Your task to perform on an android device: empty trash in the gmail app Image 0: 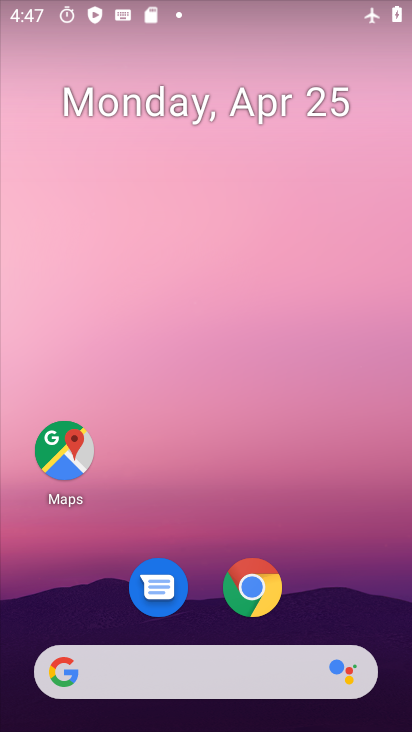
Step 0: drag from (331, 497) to (285, 22)
Your task to perform on an android device: empty trash in the gmail app Image 1: 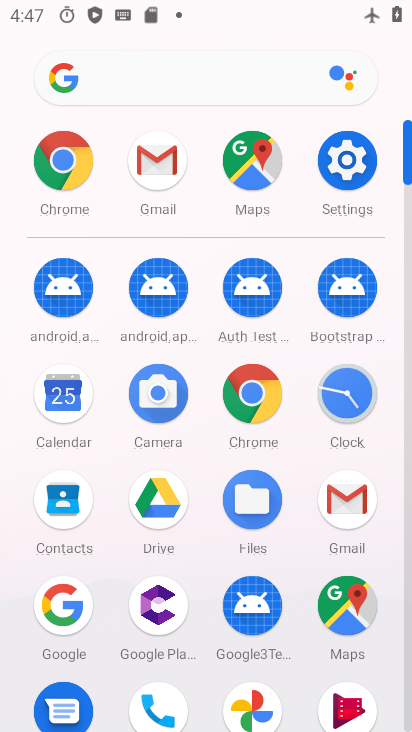
Step 1: click (355, 504)
Your task to perform on an android device: empty trash in the gmail app Image 2: 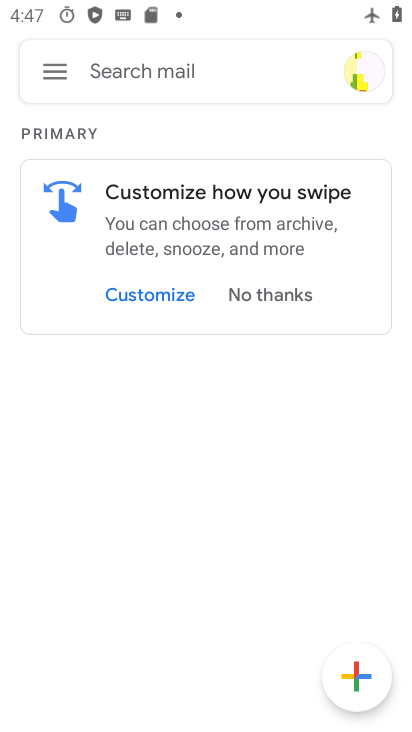
Step 2: click (49, 65)
Your task to perform on an android device: empty trash in the gmail app Image 3: 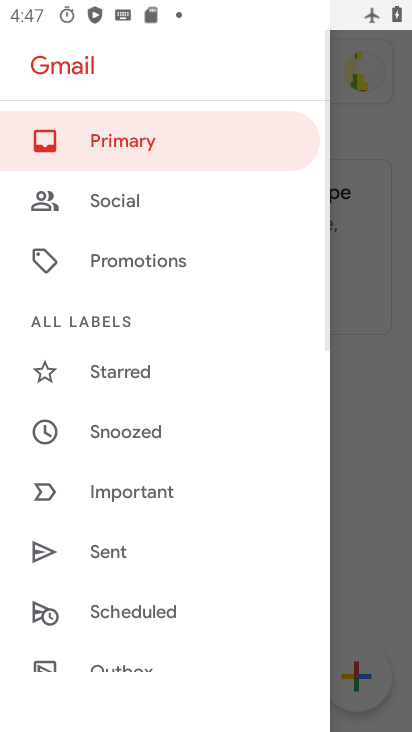
Step 3: drag from (149, 494) to (196, 130)
Your task to perform on an android device: empty trash in the gmail app Image 4: 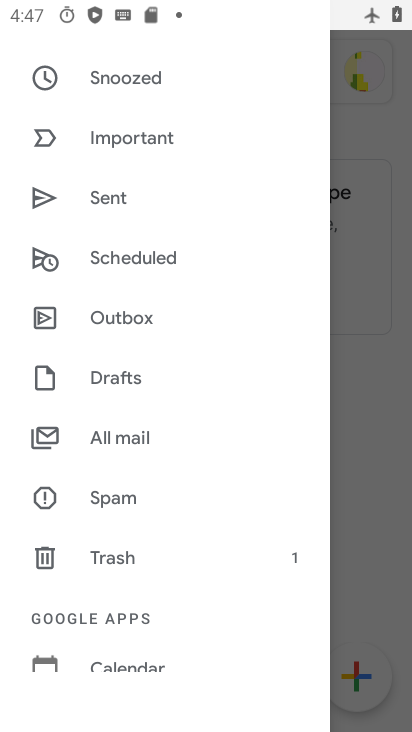
Step 4: click (114, 555)
Your task to perform on an android device: empty trash in the gmail app Image 5: 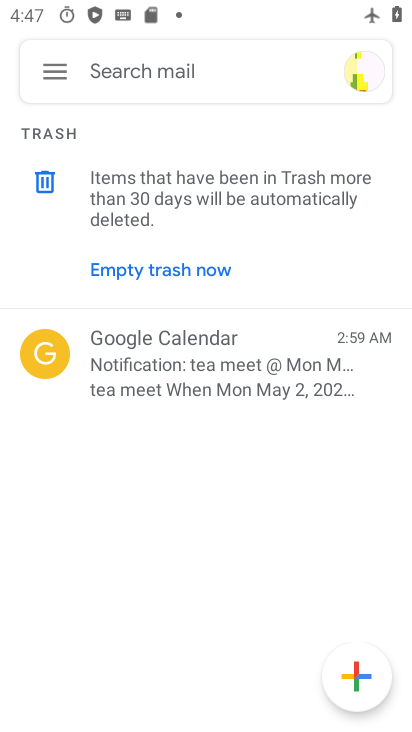
Step 5: click (147, 249)
Your task to perform on an android device: empty trash in the gmail app Image 6: 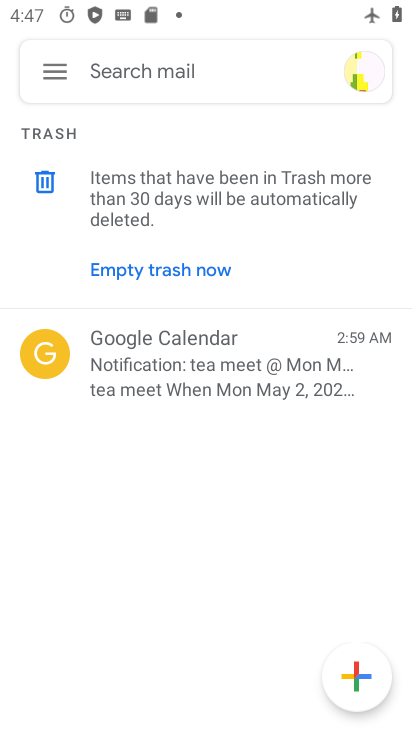
Step 6: click (146, 271)
Your task to perform on an android device: empty trash in the gmail app Image 7: 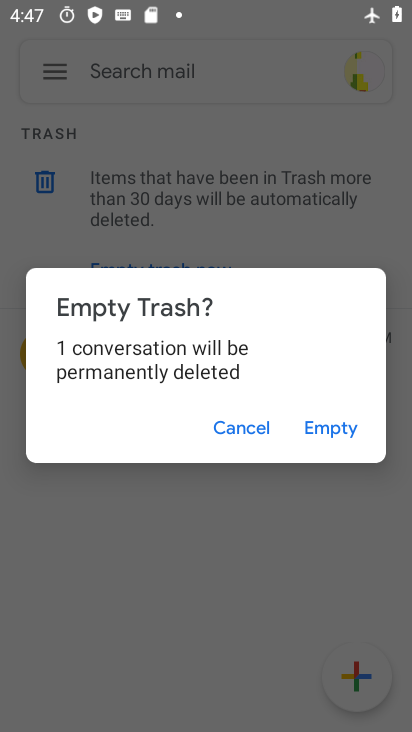
Step 7: click (316, 425)
Your task to perform on an android device: empty trash in the gmail app Image 8: 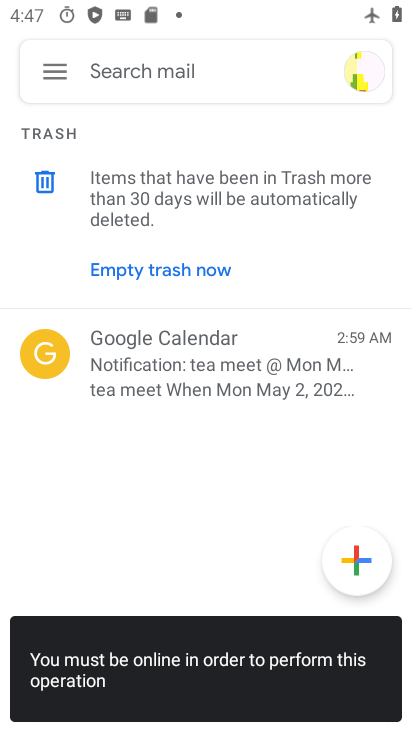
Step 8: task complete